Your task to perform on an android device: Find coffee shops on Maps Image 0: 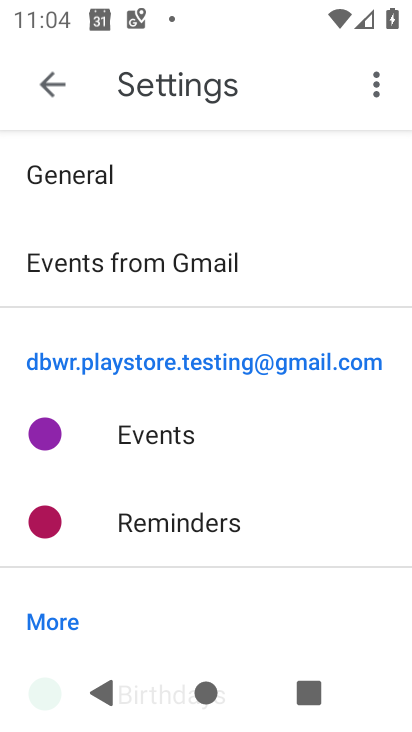
Step 0: press back button
Your task to perform on an android device: Find coffee shops on Maps Image 1: 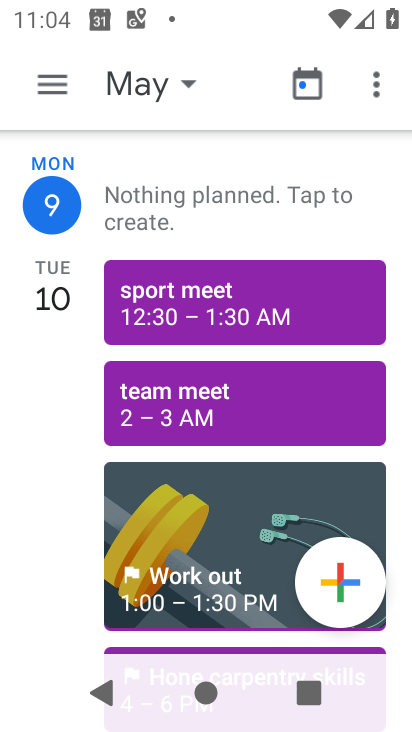
Step 1: press back button
Your task to perform on an android device: Find coffee shops on Maps Image 2: 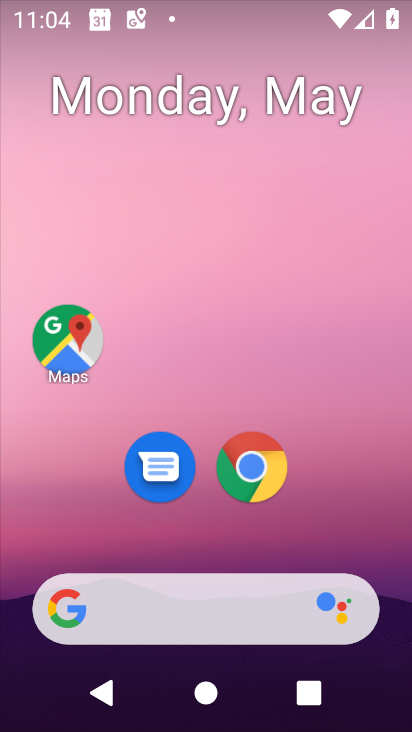
Step 2: drag from (353, 525) to (143, 6)
Your task to perform on an android device: Find coffee shops on Maps Image 3: 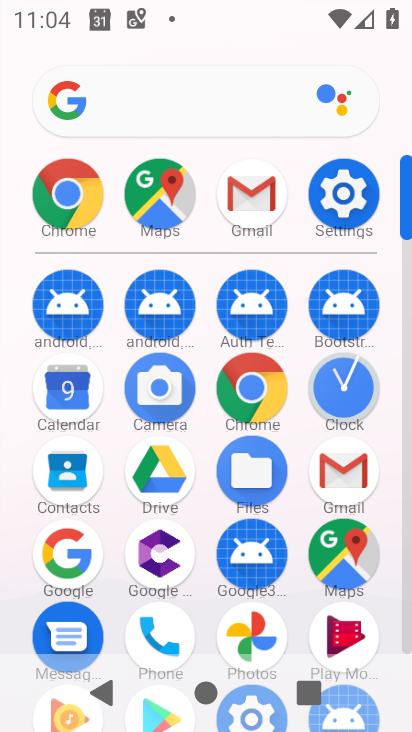
Step 3: click (168, 192)
Your task to perform on an android device: Find coffee shops on Maps Image 4: 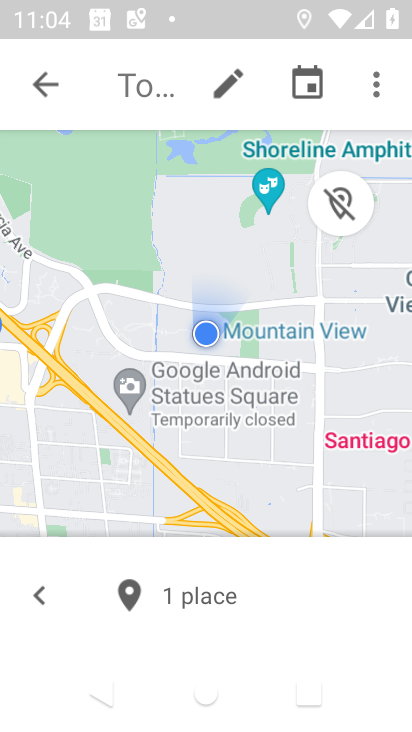
Step 4: click (38, 79)
Your task to perform on an android device: Find coffee shops on Maps Image 5: 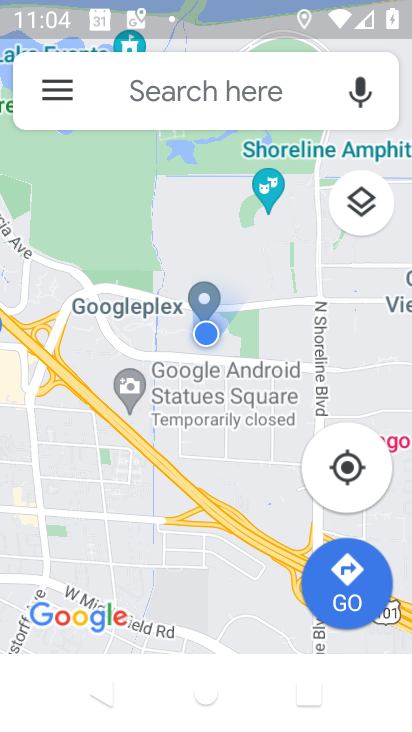
Step 5: click (143, 98)
Your task to perform on an android device: Find coffee shops on Maps Image 6: 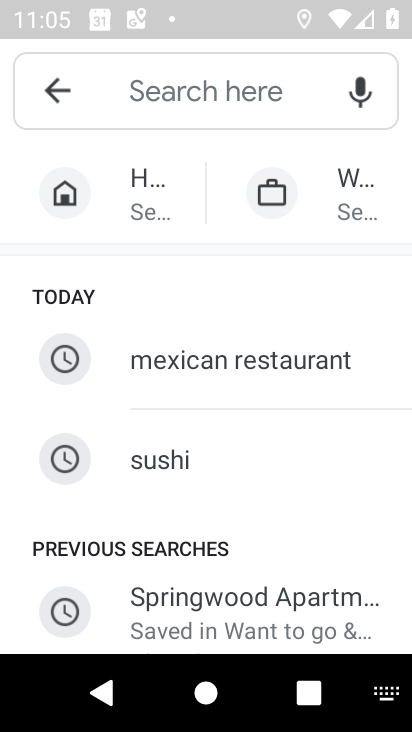
Step 6: type "coffee"
Your task to perform on an android device: Find coffee shops on Maps Image 7: 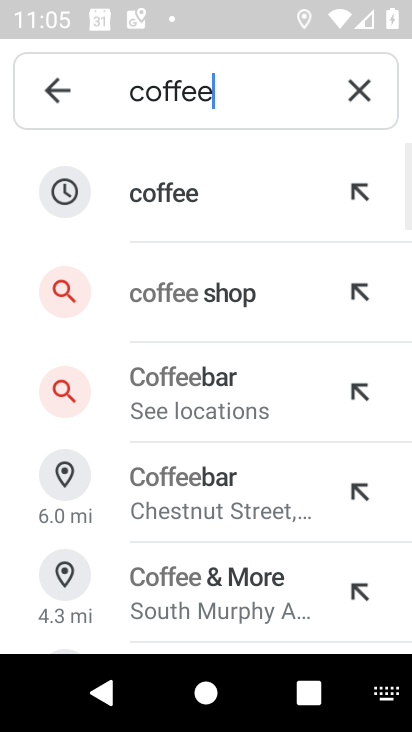
Step 7: click (165, 194)
Your task to perform on an android device: Find coffee shops on Maps Image 8: 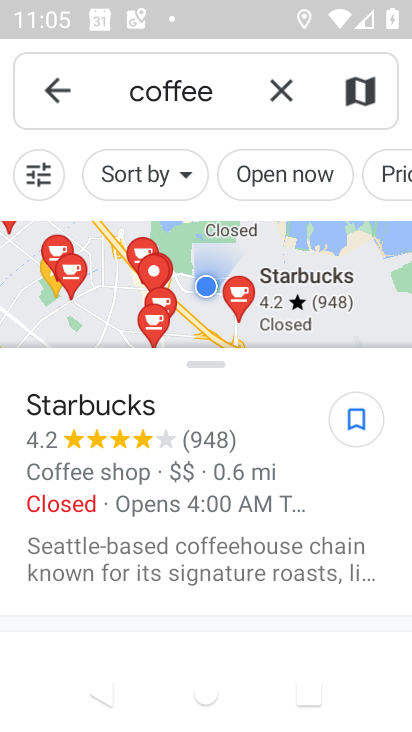
Step 8: task complete